Your task to perform on an android device: turn on airplane mode Image 0: 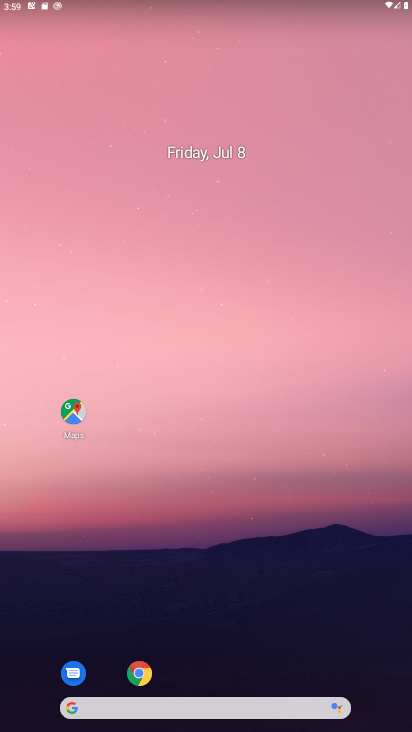
Step 0: drag from (281, 609) to (278, 6)
Your task to perform on an android device: turn on airplane mode Image 1: 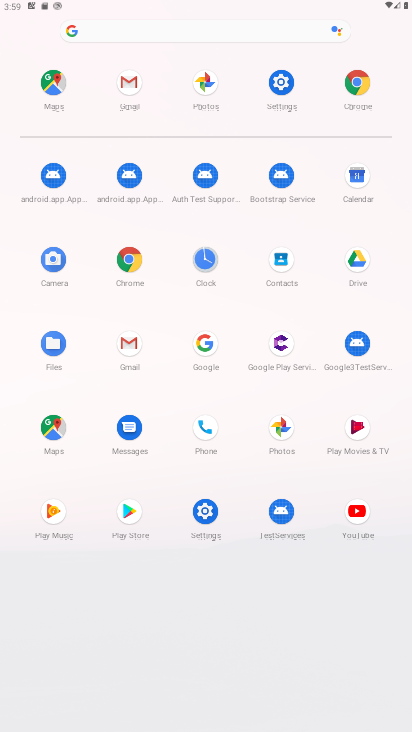
Step 1: click (283, 75)
Your task to perform on an android device: turn on airplane mode Image 2: 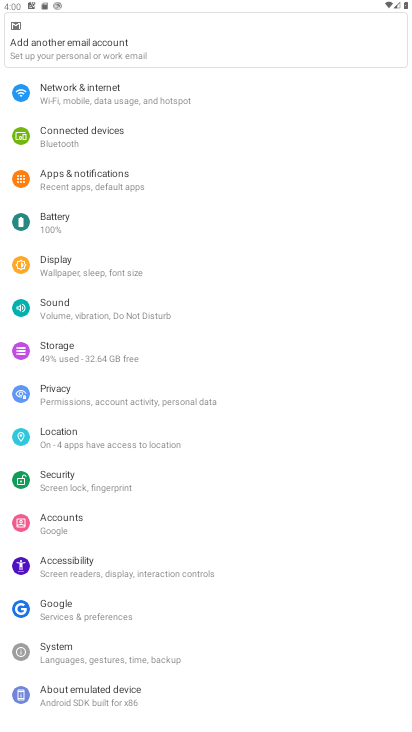
Step 2: click (61, 98)
Your task to perform on an android device: turn on airplane mode Image 3: 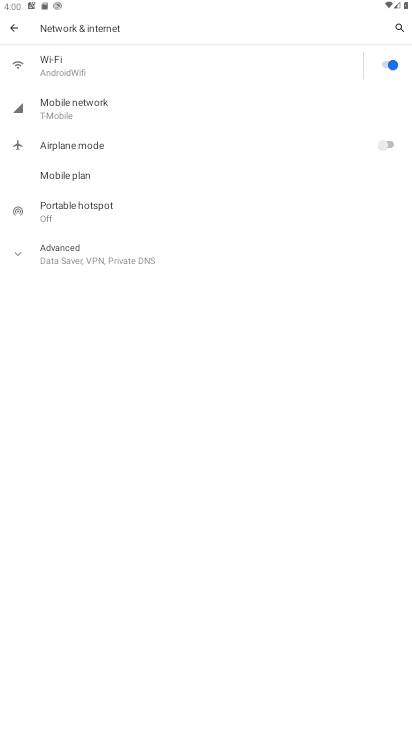
Step 3: click (395, 140)
Your task to perform on an android device: turn on airplane mode Image 4: 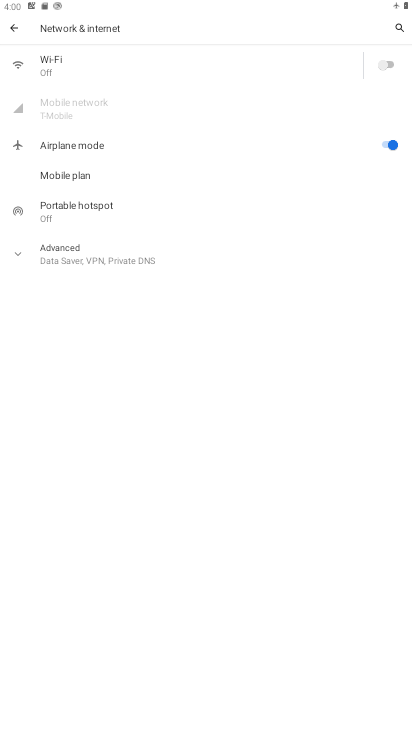
Step 4: task complete